Your task to perform on an android device: empty trash in google photos Image 0: 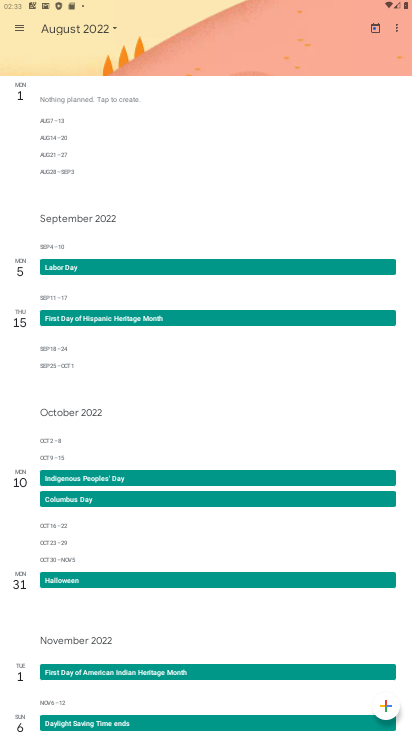
Step 0: press home button
Your task to perform on an android device: empty trash in google photos Image 1: 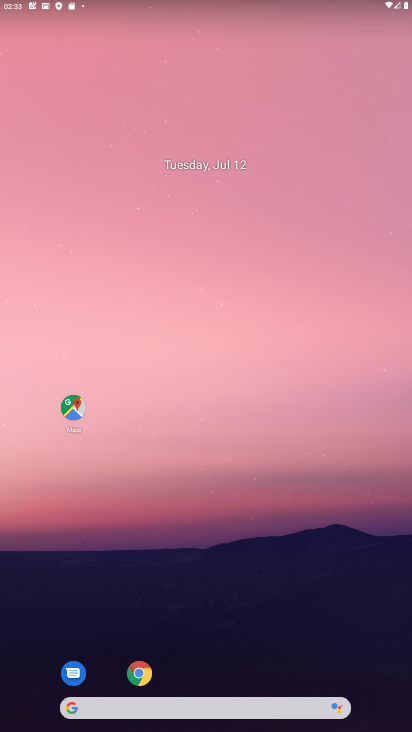
Step 1: drag from (272, 605) to (219, 100)
Your task to perform on an android device: empty trash in google photos Image 2: 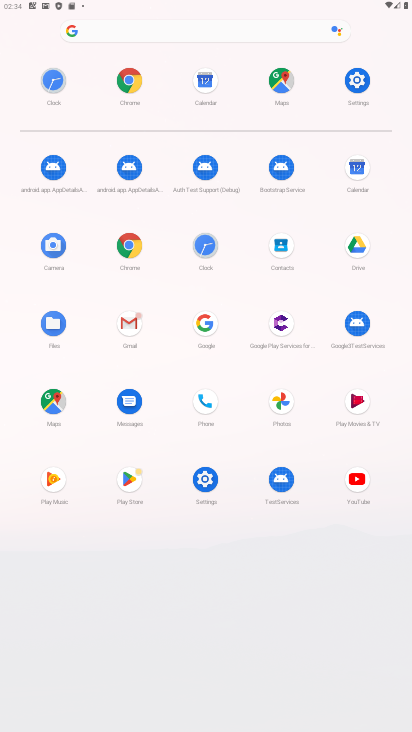
Step 2: click (281, 396)
Your task to perform on an android device: empty trash in google photos Image 3: 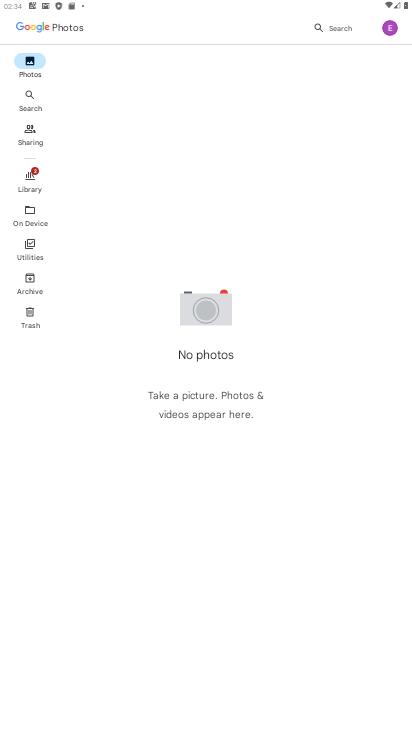
Step 3: click (378, 22)
Your task to perform on an android device: empty trash in google photos Image 4: 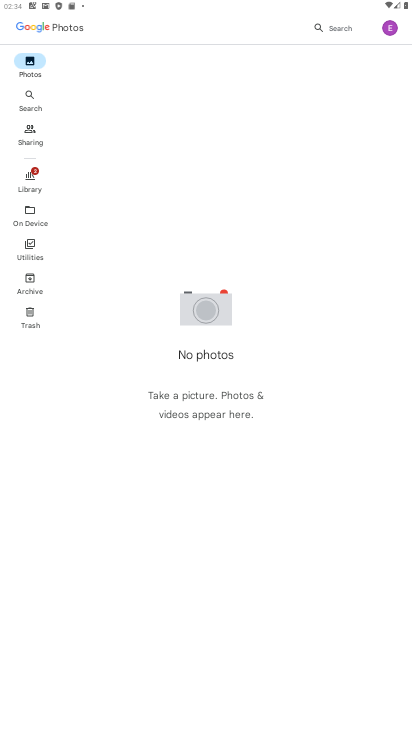
Step 4: click (34, 305)
Your task to perform on an android device: empty trash in google photos Image 5: 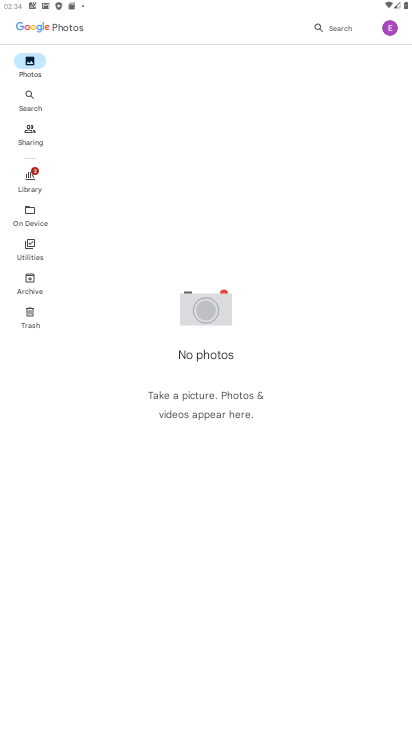
Step 5: click (34, 307)
Your task to perform on an android device: empty trash in google photos Image 6: 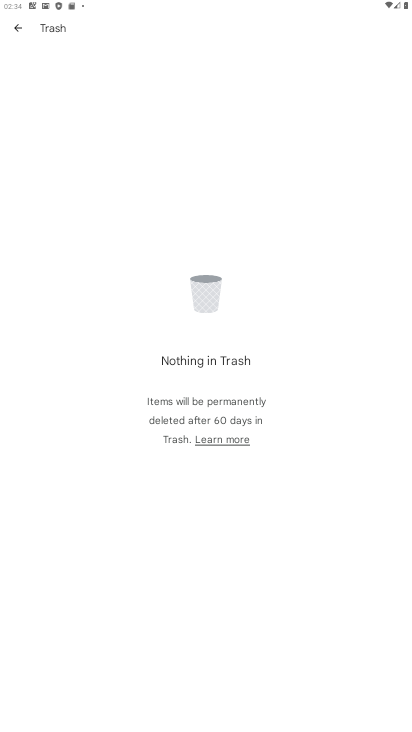
Step 6: click (31, 313)
Your task to perform on an android device: empty trash in google photos Image 7: 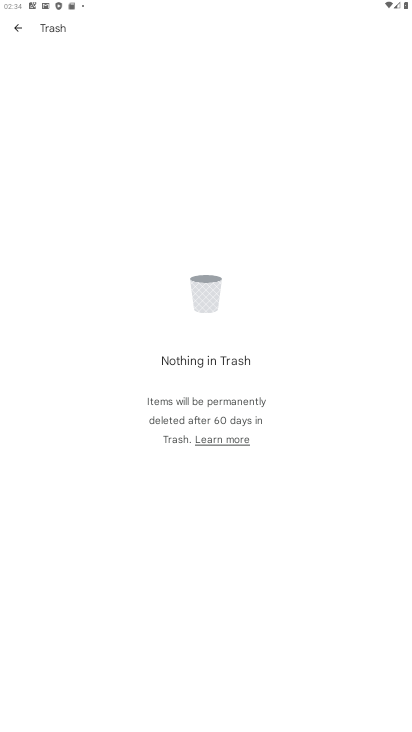
Step 7: task complete